Your task to perform on an android device: Go to Yahoo.com Image 0: 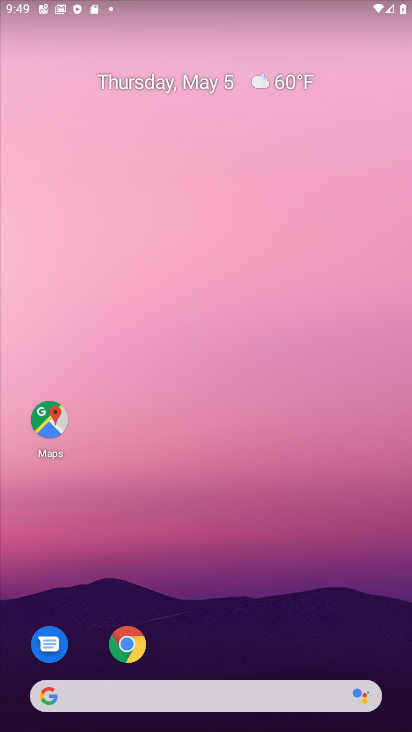
Step 0: click (131, 651)
Your task to perform on an android device: Go to Yahoo.com Image 1: 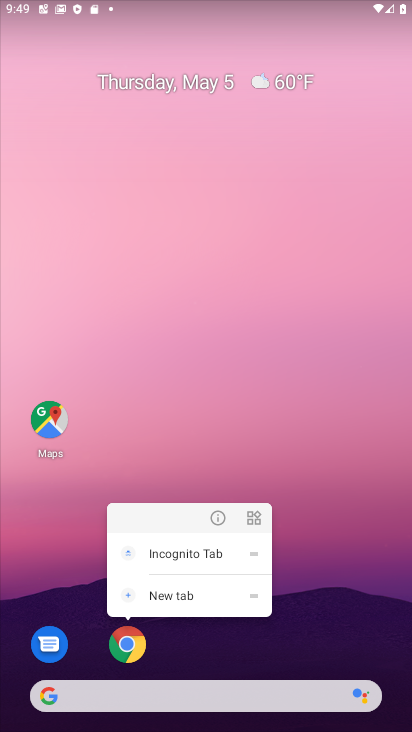
Step 1: click (131, 651)
Your task to perform on an android device: Go to Yahoo.com Image 2: 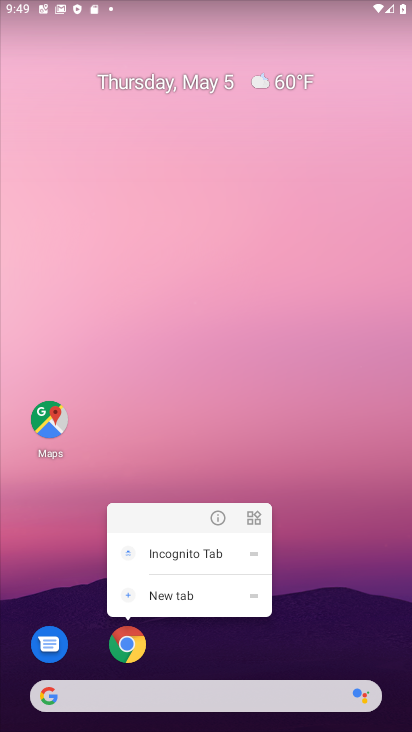
Step 2: click (131, 650)
Your task to perform on an android device: Go to Yahoo.com Image 3: 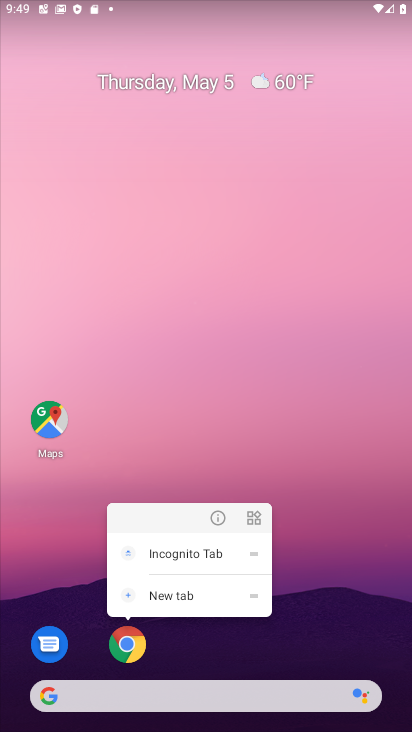
Step 3: click (133, 646)
Your task to perform on an android device: Go to Yahoo.com Image 4: 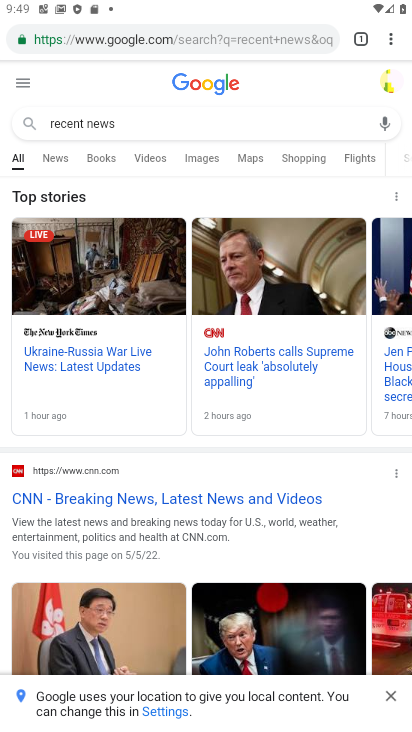
Step 4: click (217, 38)
Your task to perform on an android device: Go to Yahoo.com Image 5: 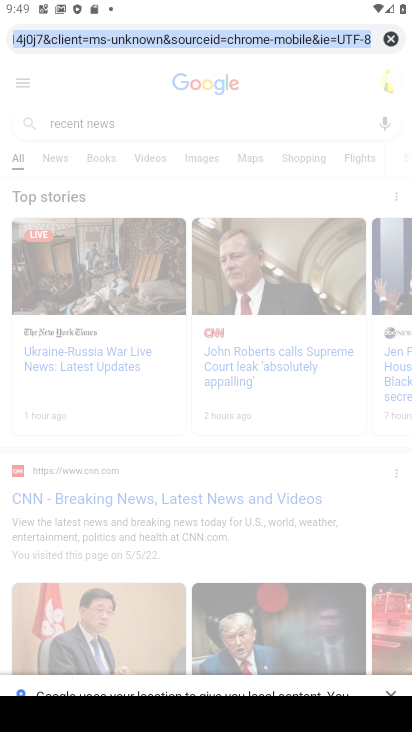
Step 5: type "yahoo.com"
Your task to perform on an android device: Go to Yahoo.com Image 6: 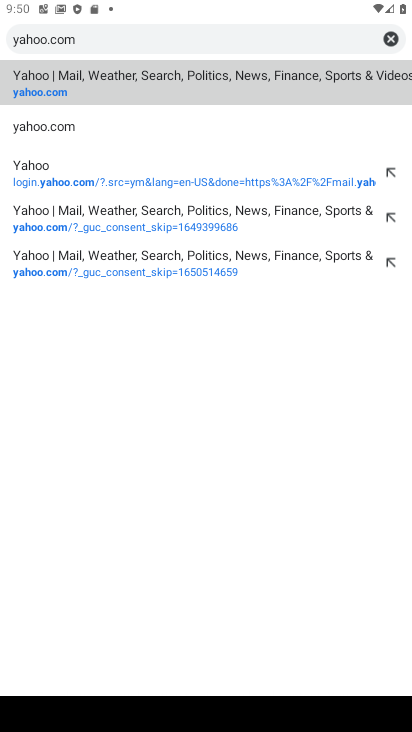
Step 6: click (47, 101)
Your task to perform on an android device: Go to Yahoo.com Image 7: 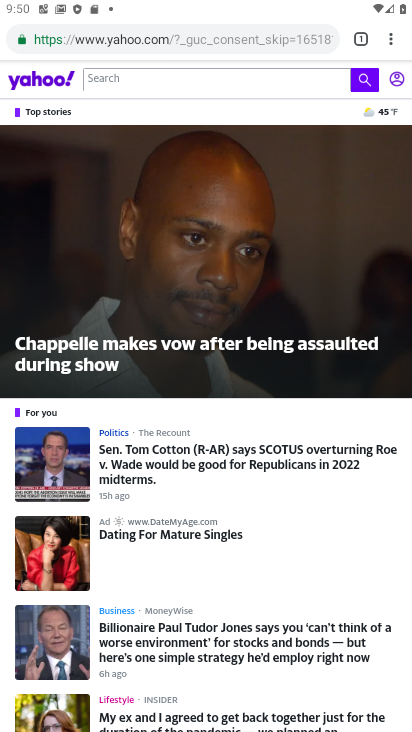
Step 7: task complete